Your task to perform on an android device: Check the weather Image 0: 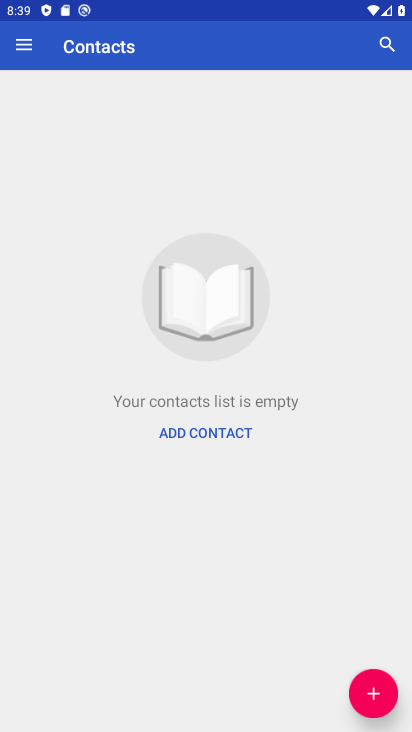
Step 0: press home button
Your task to perform on an android device: Check the weather Image 1: 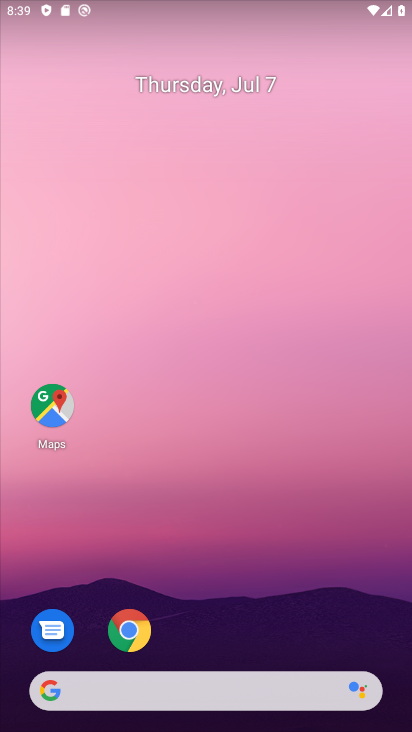
Step 1: drag from (224, 622) to (215, 143)
Your task to perform on an android device: Check the weather Image 2: 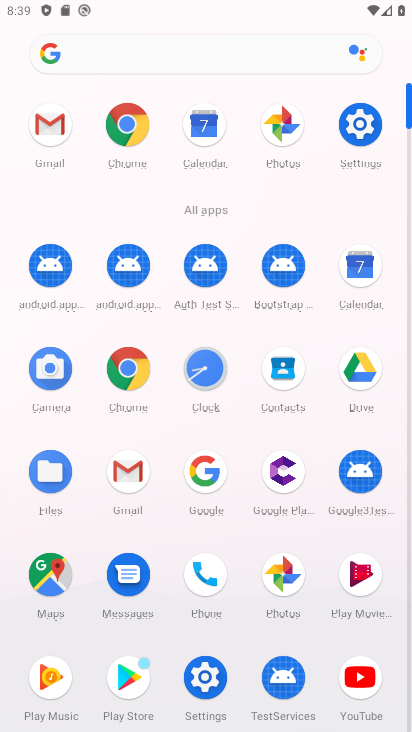
Step 2: click (200, 472)
Your task to perform on an android device: Check the weather Image 3: 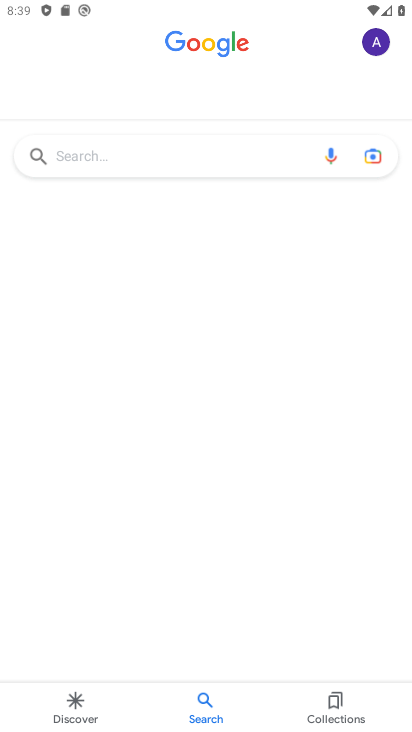
Step 3: click (175, 154)
Your task to perform on an android device: Check the weather Image 4: 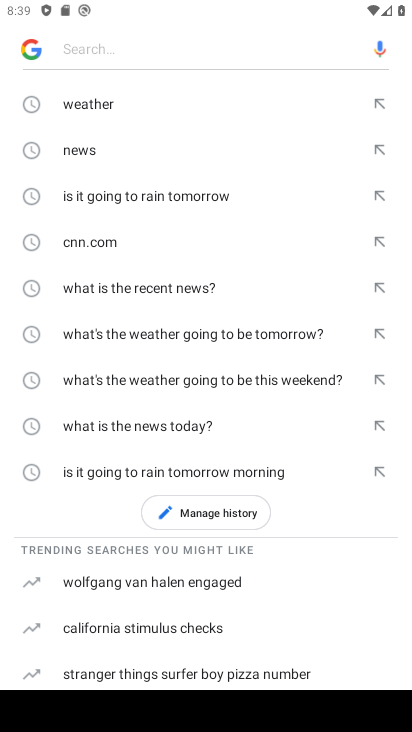
Step 4: click (108, 106)
Your task to perform on an android device: Check the weather Image 5: 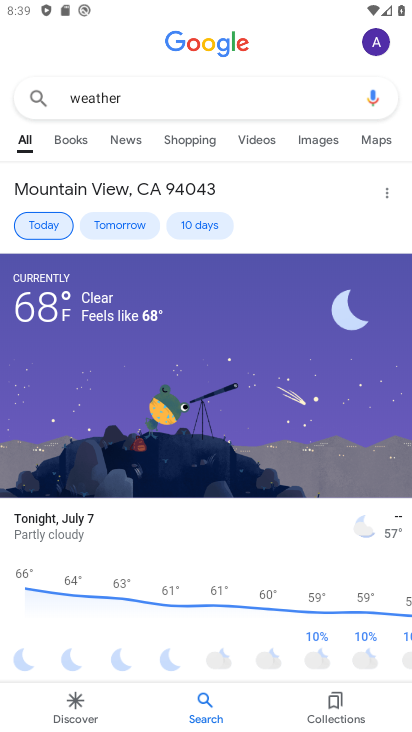
Step 5: task complete